Your task to perform on an android device: change text size in settings app Image 0: 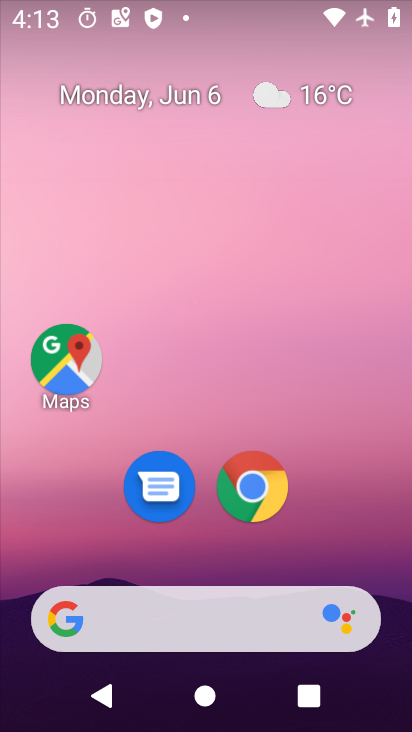
Step 0: drag from (328, 513) to (367, 146)
Your task to perform on an android device: change text size in settings app Image 1: 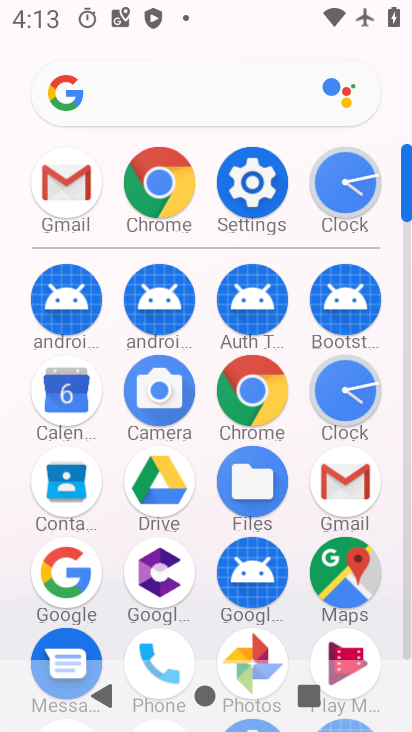
Step 1: click (251, 182)
Your task to perform on an android device: change text size in settings app Image 2: 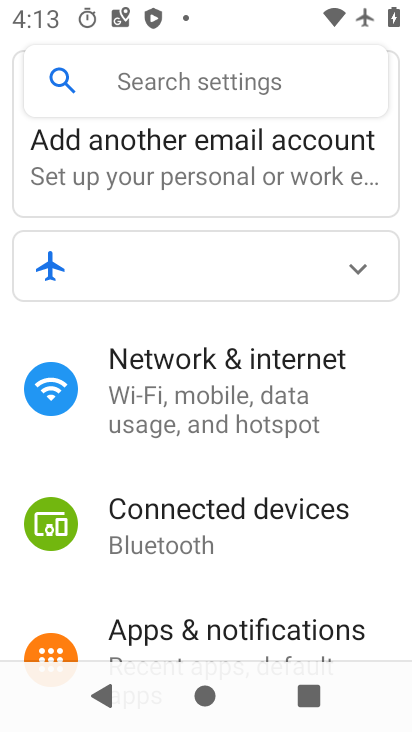
Step 2: drag from (198, 543) to (277, 126)
Your task to perform on an android device: change text size in settings app Image 3: 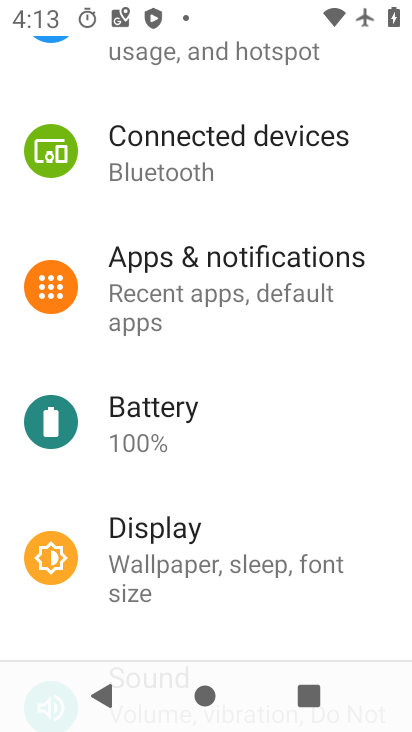
Step 3: drag from (137, 539) to (258, 278)
Your task to perform on an android device: change text size in settings app Image 4: 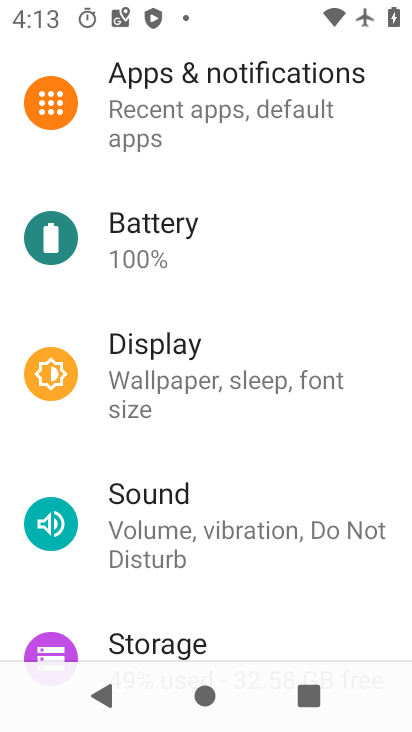
Step 4: click (188, 366)
Your task to perform on an android device: change text size in settings app Image 5: 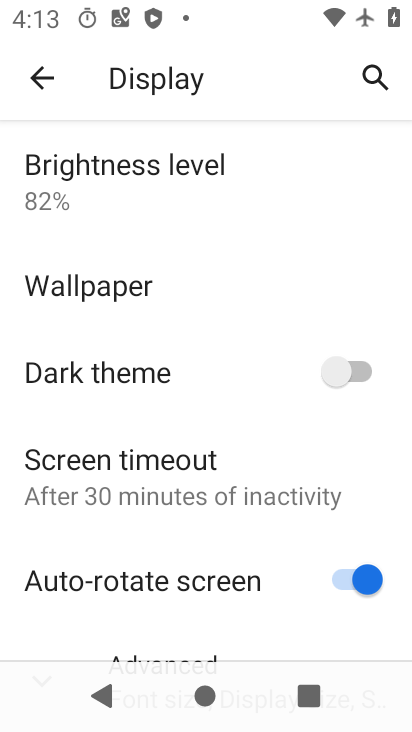
Step 5: drag from (159, 534) to (218, 194)
Your task to perform on an android device: change text size in settings app Image 6: 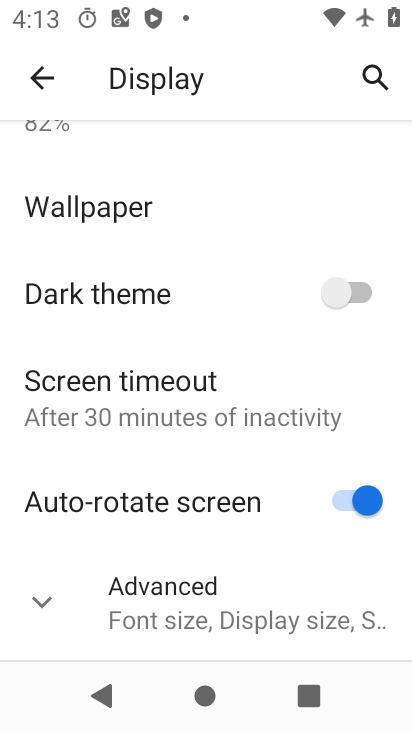
Step 6: click (211, 607)
Your task to perform on an android device: change text size in settings app Image 7: 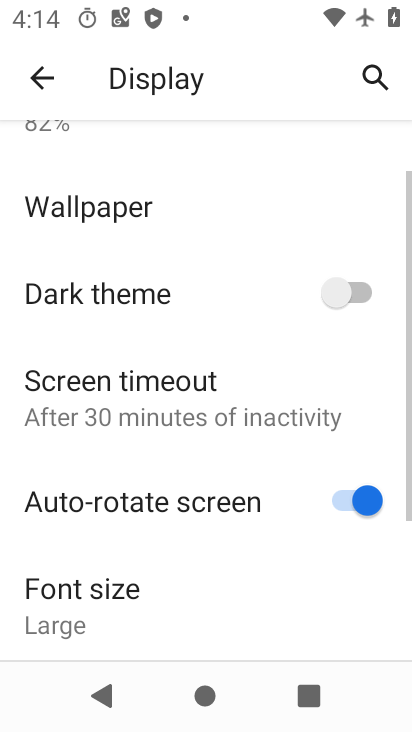
Step 7: click (71, 598)
Your task to perform on an android device: change text size in settings app Image 8: 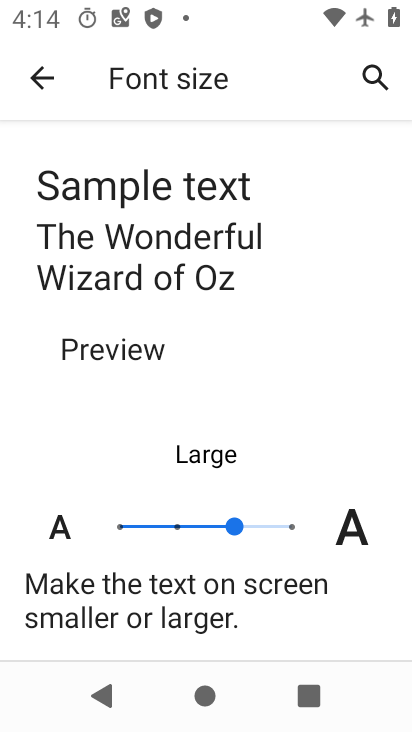
Step 8: click (116, 526)
Your task to perform on an android device: change text size in settings app Image 9: 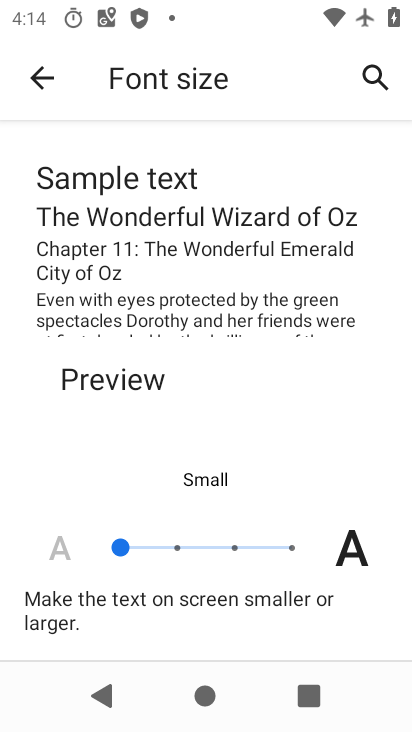
Step 9: task complete